Your task to perform on an android device: Open Chrome and go to settings Image 0: 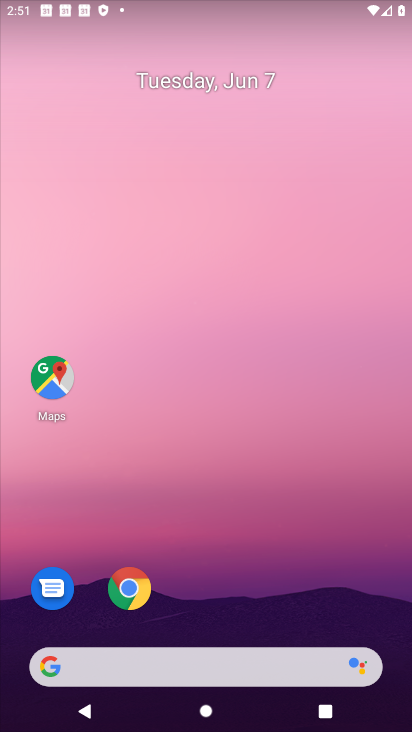
Step 0: click (134, 598)
Your task to perform on an android device: Open Chrome and go to settings Image 1: 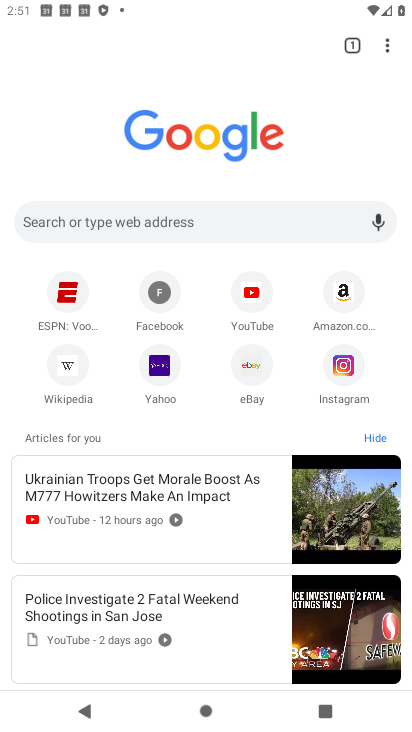
Step 1: click (387, 53)
Your task to perform on an android device: Open Chrome and go to settings Image 2: 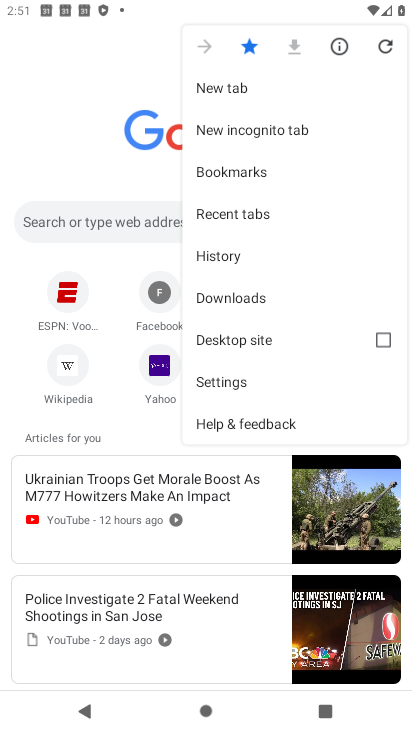
Step 2: click (229, 398)
Your task to perform on an android device: Open Chrome and go to settings Image 3: 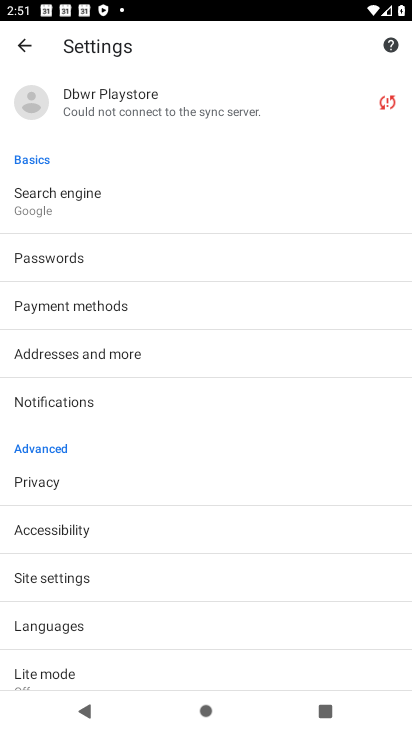
Step 3: task complete